Your task to perform on an android device: What's the weather going to be this weekend? Image 0: 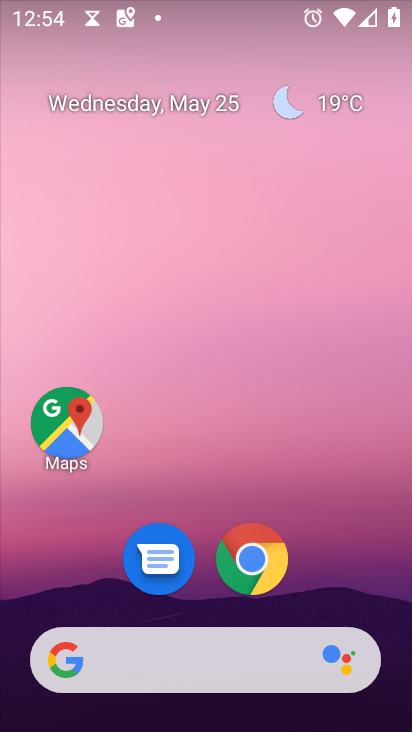
Step 0: drag from (338, 477) to (283, 72)
Your task to perform on an android device: What's the weather going to be this weekend? Image 1: 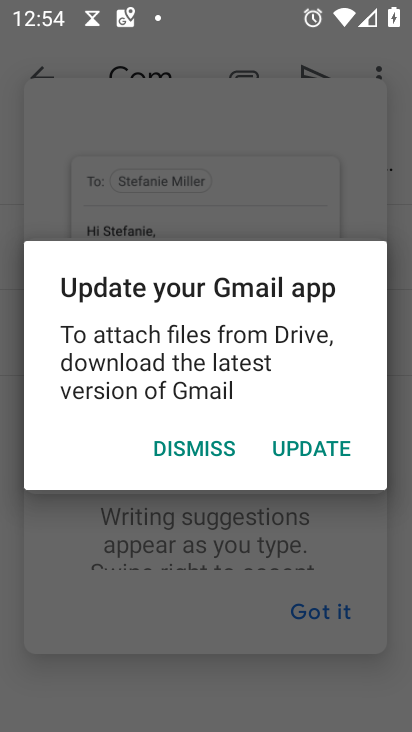
Step 1: press home button
Your task to perform on an android device: What's the weather going to be this weekend? Image 2: 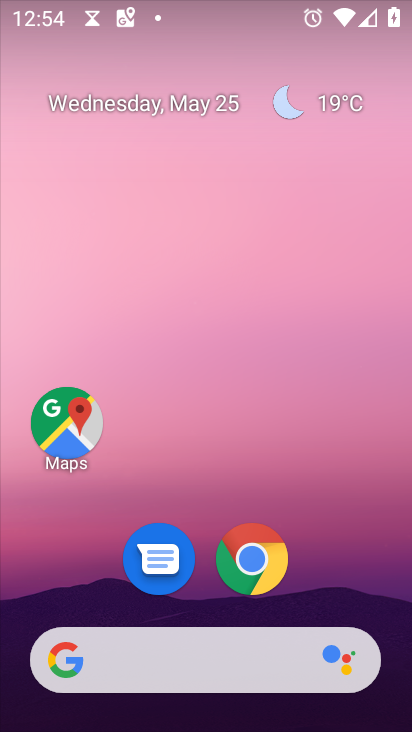
Step 2: drag from (372, 583) to (259, 0)
Your task to perform on an android device: What's the weather going to be this weekend? Image 3: 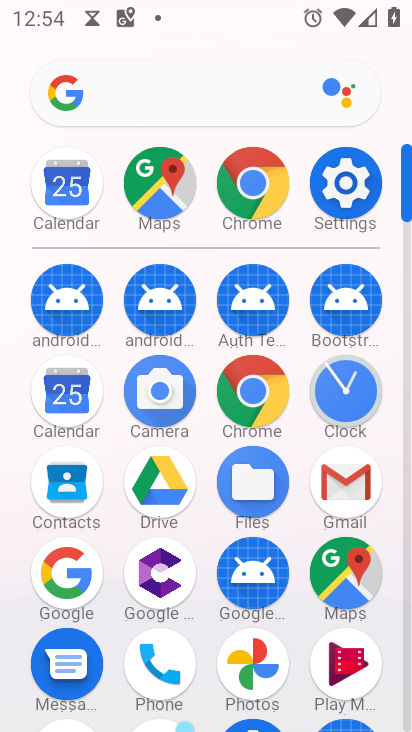
Step 3: press home button
Your task to perform on an android device: What's the weather going to be this weekend? Image 4: 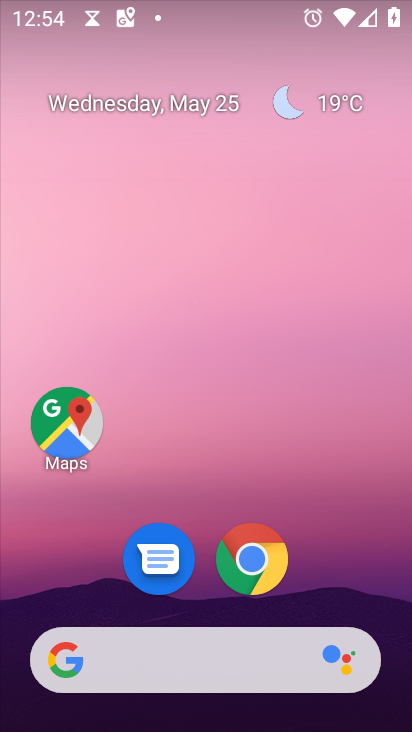
Step 4: click (301, 106)
Your task to perform on an android device: What's the weather going to be this weekend? Image 5: 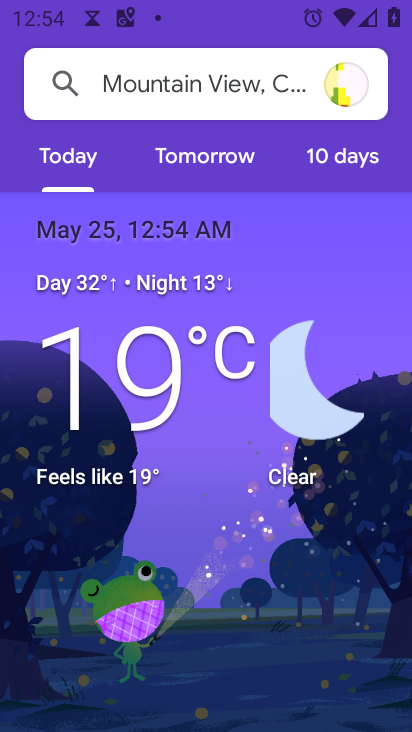
Step 5: click (342, 160)
Your task to perform on an android device: What's the weather going to be this weekend? Image 6: 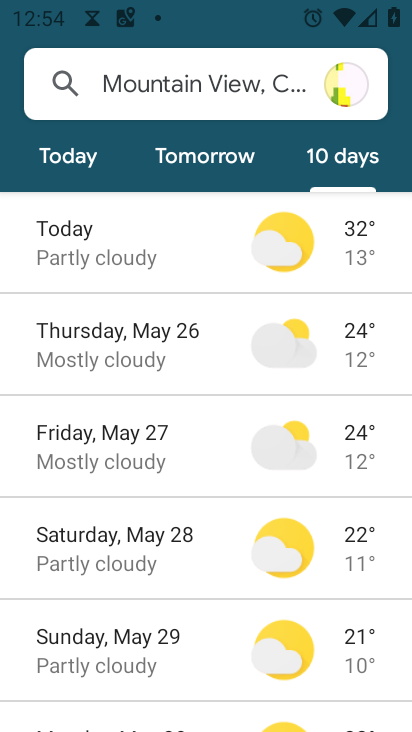
Step 6: task complete